Your task to perform on an android device: Open privacy settings Image 0: 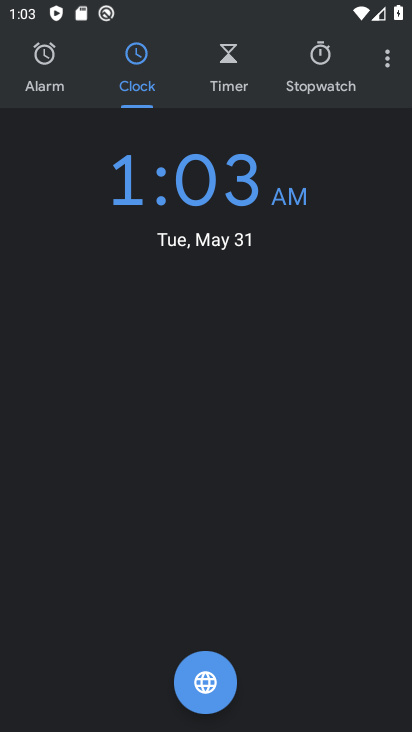
Step 0: press home button
Your task to perform on an android device: Open privacy settings Image 1: 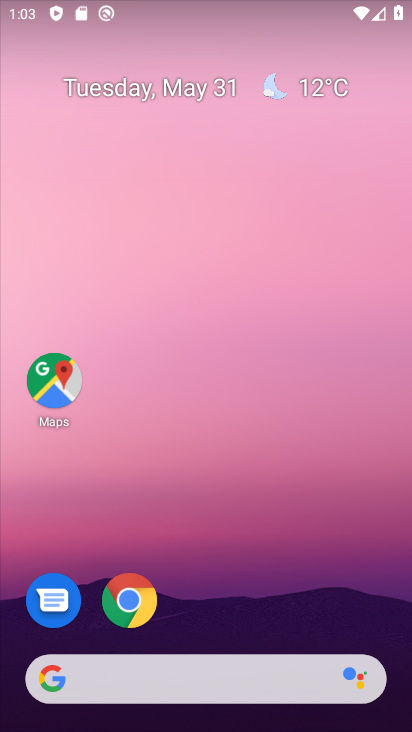
Step 1: drag from (282, 450) to (271, 46)
Your task to perform on an android device: Open privacy settings Image 2: 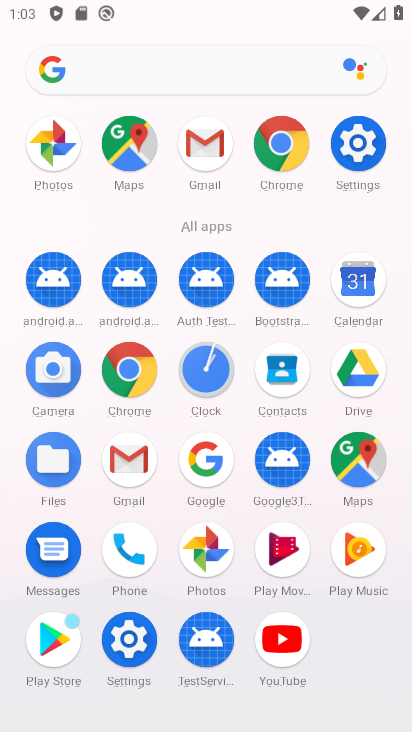
Step 2: click (358, 153)
Your task to perform on an android device: Open privacy settings Image 3: 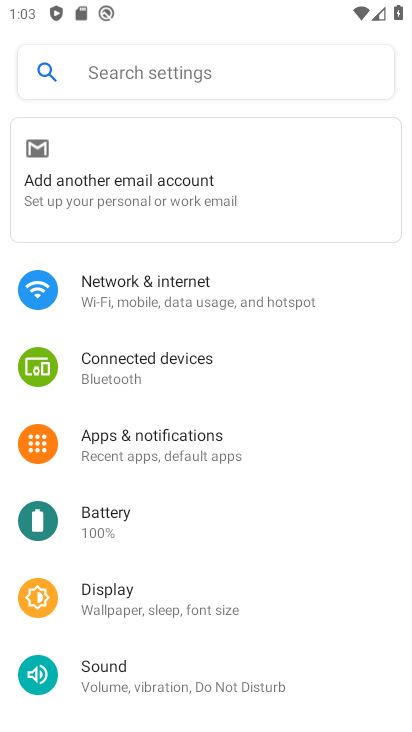
Step 3: drag from (181, 613) to (227, 84)
Your task to perform on an android device: Open privacy settings Image 4: 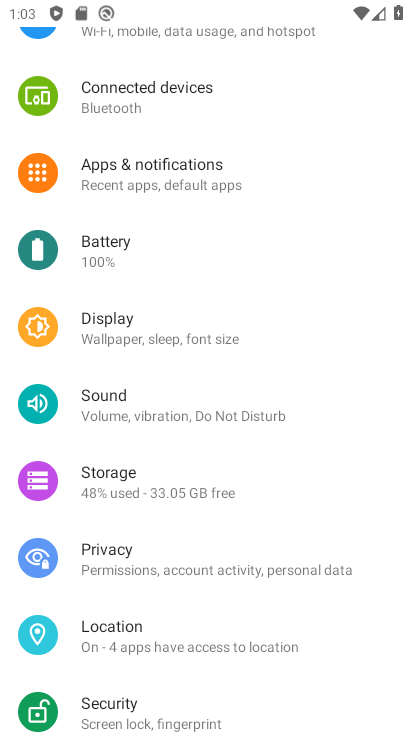
Step 4: click (155, 557)
Your task to perform on an android device: Open privacy settings Image 5: 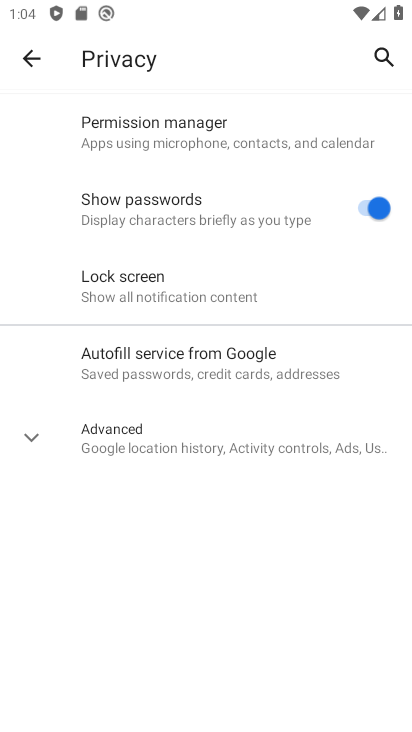
Step 5: task complete